Your task to perform on an android device: Open Google Chrome Image 0: 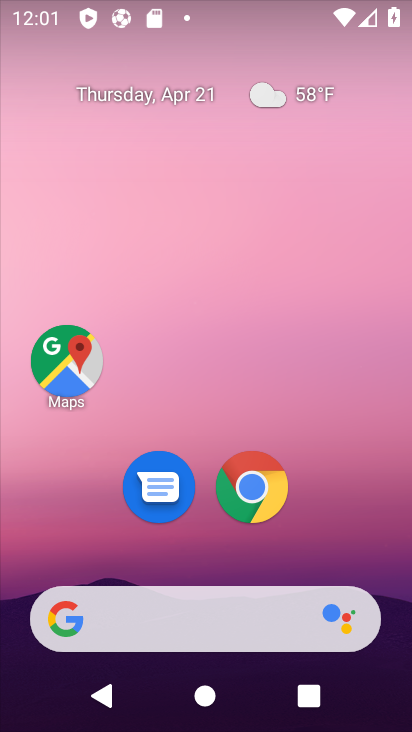
Step 0: click (251, 494)
Your task to perform on an android device: Open Google Chrome Image 1: 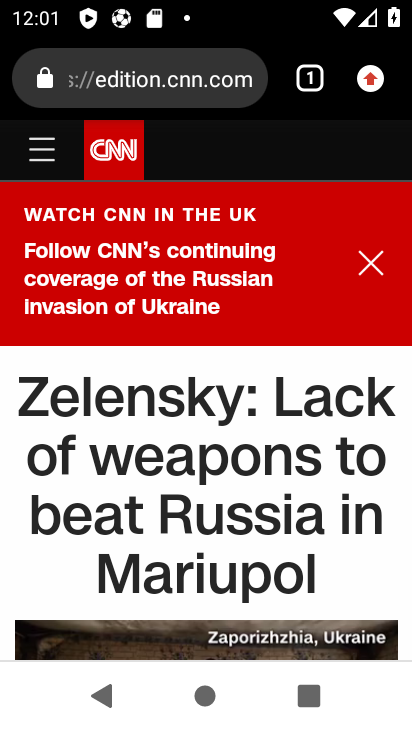
Step 1: task complete